Your task to perform on an android device: turn vacation reply on in the gmail app Image 0: 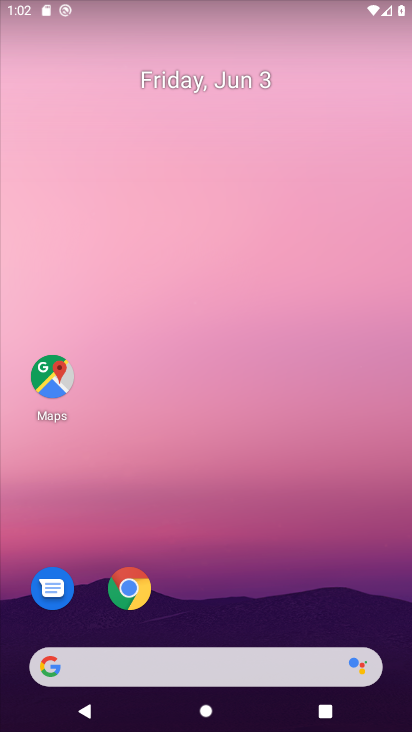
Step 0: drag from (240, 598) to (151, 239)
Your task to perform on an android device: turn vacation reply on in the gmail app Image 1: 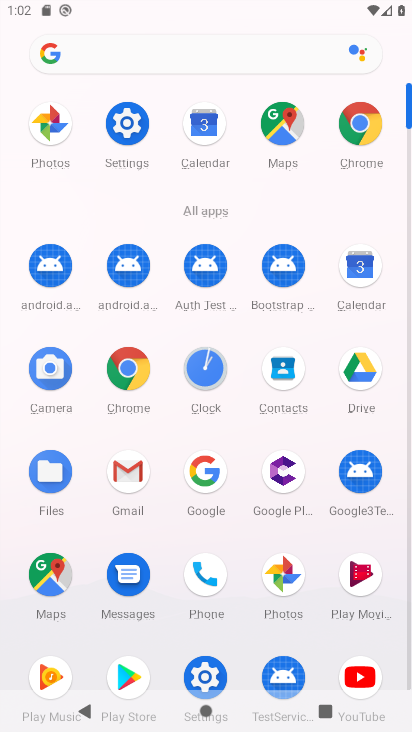
Step 1: click (132, 476)
Your task to perform on an android device: turn vacation reply on in the gmail app Image 2: 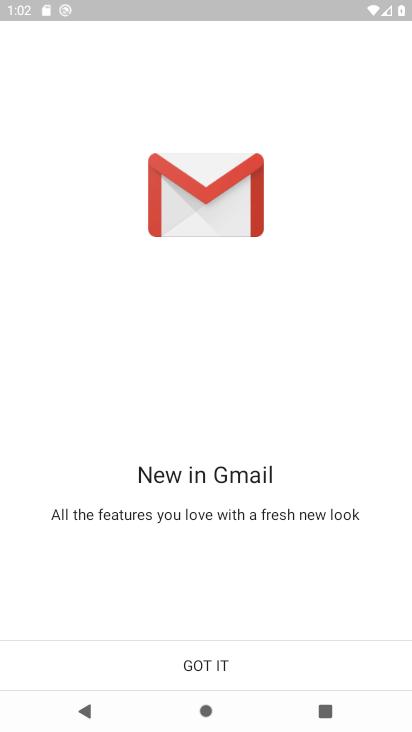
Step 2: click (213, 663)
Your task to perform on an android device: turn vacation reply on in the gmail app Image 3: 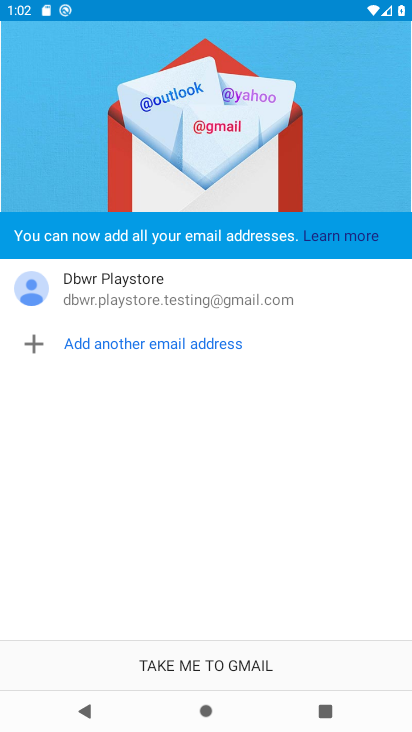
Step 3: click (213, 663)
Your task to perform on an android device: turn vacation reply on in the gmail app Image 4: 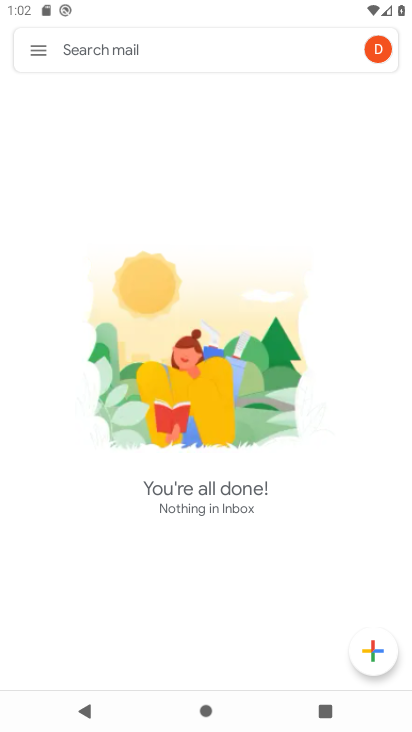
Step 4: click (33, 47)
Your task to perform on an android device: turn vacation reply on in the gmail app Image 5: 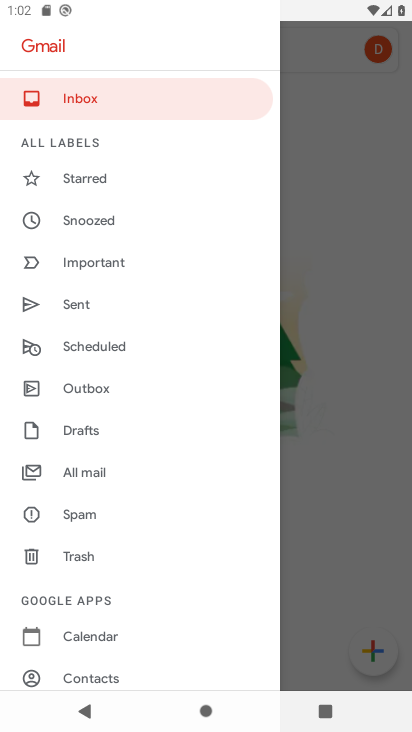
Step 5: drag from (137, 504) to (121, 250)
Your task to perform on an android device: turn vacation reply on in the gmail app Image 6: 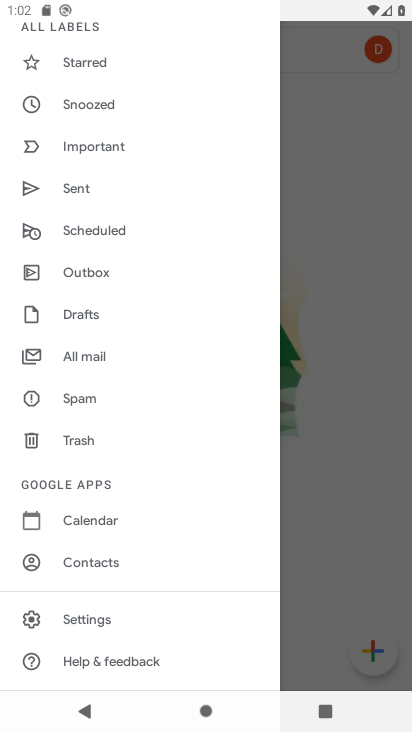
Step 6: click (118, 630)
Your task to perform on an android device: turn vacation reply on in the gmail app Image 7: 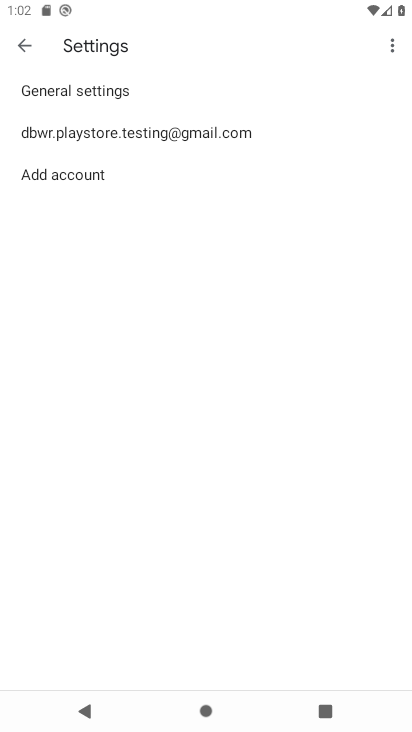
Step 7: click (209, 134)
Your task to perform on an android device: turn vacation reply on in the gmail app Image 8: 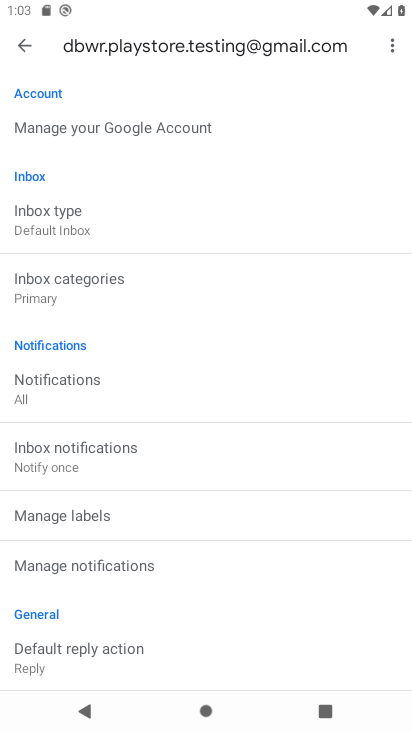
Step 8: drag from (208, 536) to (155, 228)
Your task to perform on an android device: turn vacation reply on in the gmail app Image 9: 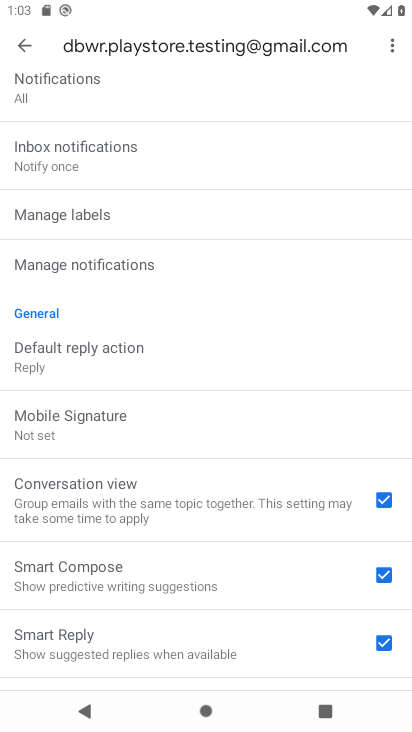
Step 9: drag from (196, 607) to (160, 302)
Your task to perform on an android device: turn vacation reply on in the gmail app Image 10: 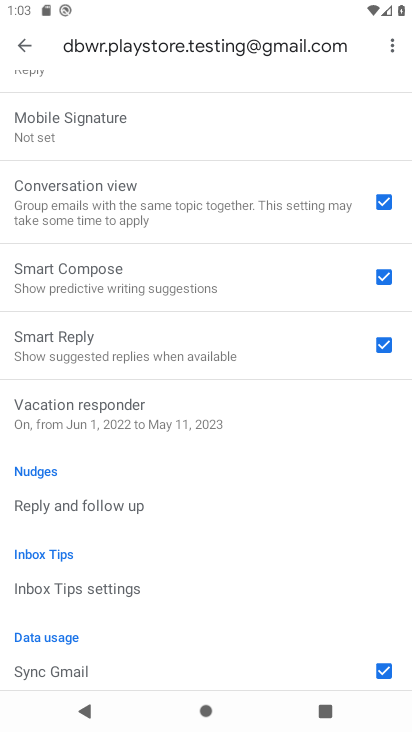
Step 10: click (229, 616)
Your task to perform on an android device: turn vacation reply on in the gmail app Image 11: 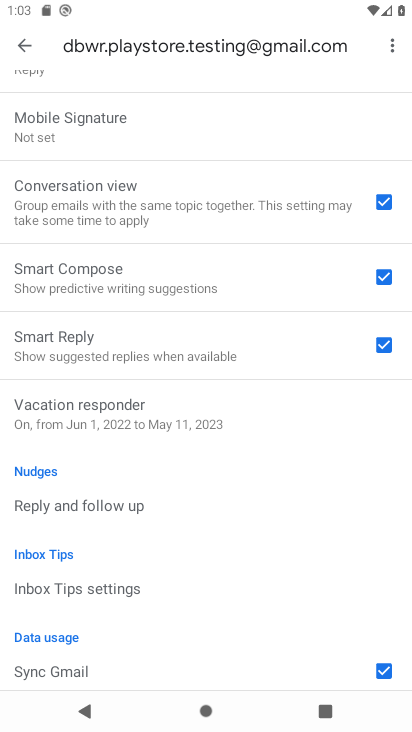
Step 11: click (205, 424)
Your task to perform on an android device: turn vacation reply on in the gmail app Image 12: 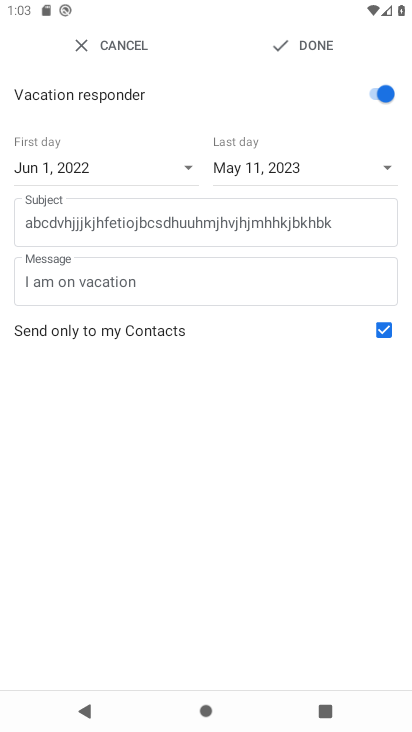
Step 12: click (305, 46)
Your task to perform on an android device: turn vacation reply on in the gmail app Image 13: 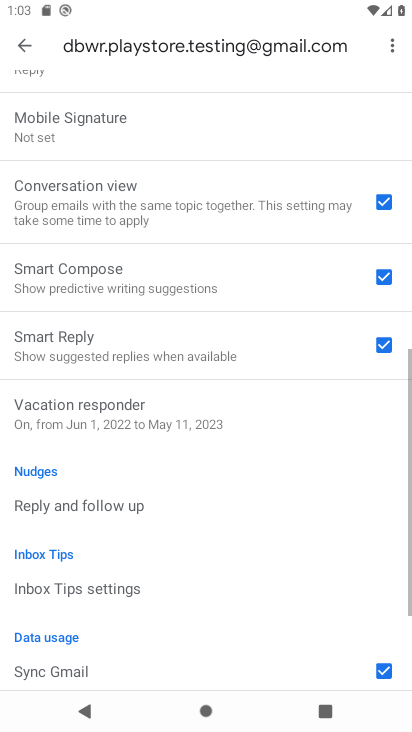
Step 13: task complete